Your task to perform on an android device: View the shopping cart on ebay.com. Search for "razer blade" on ebay.com, select the first entry, add it to the cart, then select checkout. Image 0: 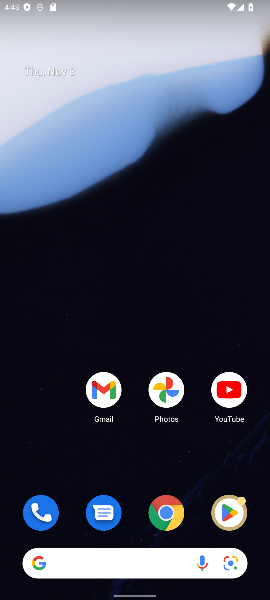
Step 0: click (166, 511)
Your task to perform on an android device: View the shopping cart on ebay.com. Search for "razer blade" on ebay.com, select the first entry, add it to the cart, then select checkout. Image 1: 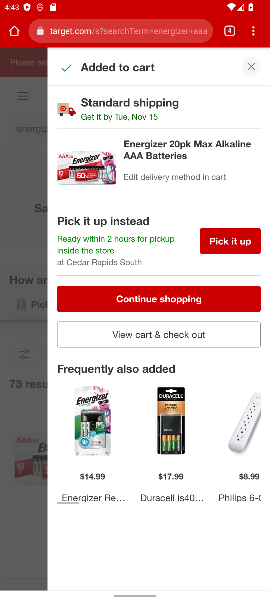
Step 1: click (231, 32)
Your task to perform on an android device: View the shopping cart on ebay.com. Search for "razer blade" on ebay.com, select the first entry, add it to the cart, then select checkout. Image 2: 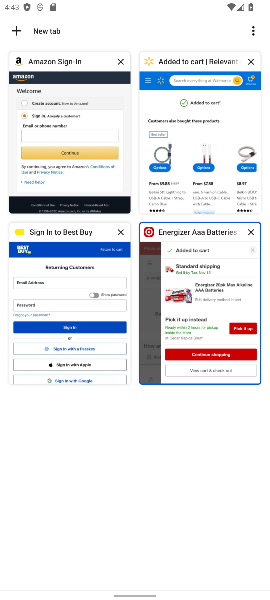
Step 2: click (16, 30)
Your task to perform on an android device: View the shopping cart on ebay.com. Search for "razer blade" on ebay.com, select the first entry, add it to the cart, then select checkout. Image 3: 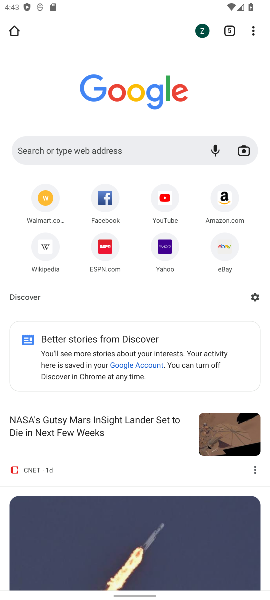
Step 3: click (126, 149)
Your task to perform on an android device: View the shopping cart on ebay.com. Search for "razer blade" on ebay.com, select the first entry, add it to the cart, then select checkout. Image 4: 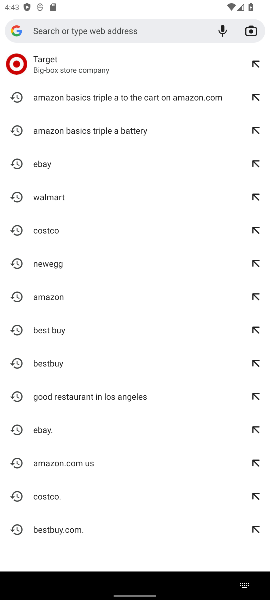
Step 4: click (46, 161)
Your task to perform on an android device: View the shopping cart on ebay.com. Search for "razer blade" on ebay.com, select the first entry, add it to the cart, then select checkout. Image 5: 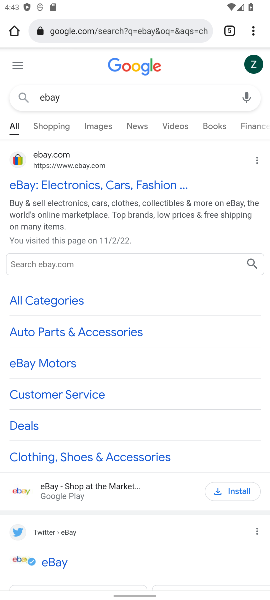
Step 5: click (28, 261)
Your task to perform on an android device: View the shopping cart on ebay.com. Search for "razer blade" on ebay.com, select the first entry, add it to the cart, then select checkout. Image 6: 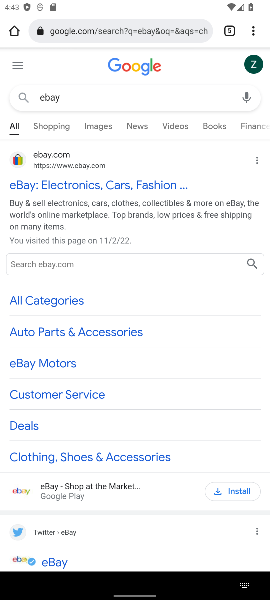
Step 6: click (149, 268)
Your task to perform on an android device: View the shopping cart on ebay.com. Search for "razer blade" on ebay.com, select the first entry, add it to the cart, then select checkout. Image 7: 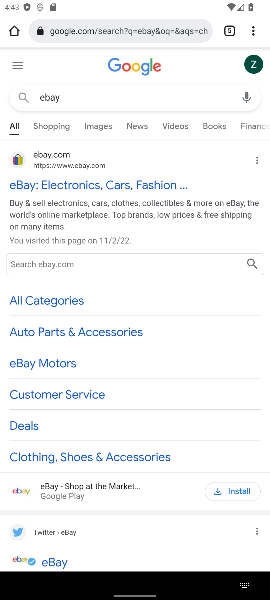
Step 7: click (60, 263)
Your task to perform on an android device: View the shopping cart on ebay.com. Search for "razer blade" on ebay.com, select the first entry, add it to the cart, then select checkout. Image 8: 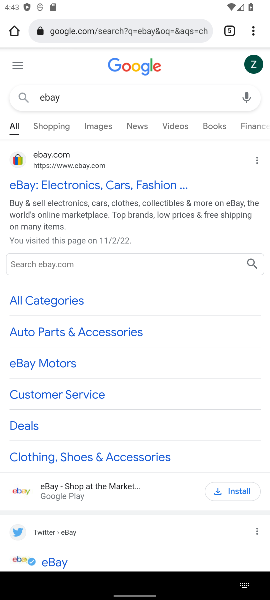
Step 8: type "razer blade"
Your task to perform on an android device: View the shopping cart on ebay.com. Search for "razer blade" on ebay.com, select the first entry, add it to the cart, then select checkout. Image 9: 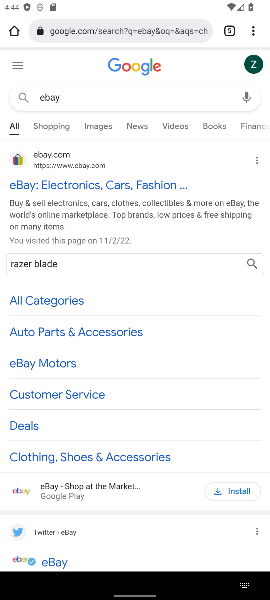
Step 9: click (254, 259)
Your task to perform on an android device: View the shopping cart on ebay.com. Search for "razer blade" on ebay.com, select the first entry, add it to the cart, then select checkout. Image 10: 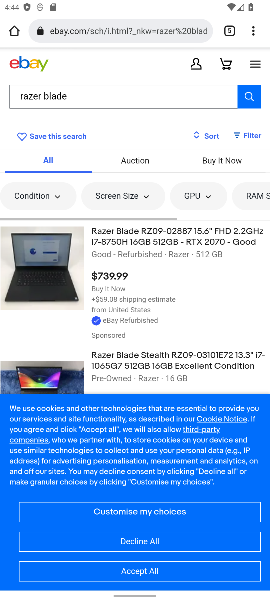
Step 10: click (171, 247)
Your task to perform on an android device: View the shopping cart on ebay.com. Search for "razer blade" on ebay.com, select the first entry, add it to the cart, then select checkout. Image 11: 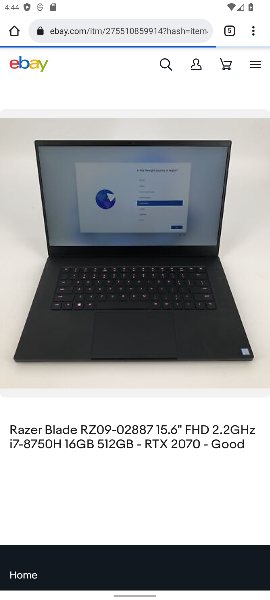
Step 11: click (131, 543)
Your task to perform on an android device: View the shopping cart on ebay.com. Search for "razer blade" on ebay.com, select the first entry, add it to the cart, then select checkout. Image 12: 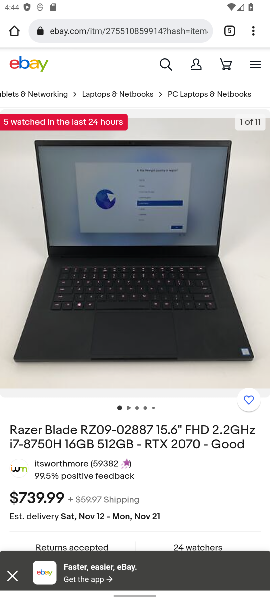
Step 12: drag from (178, 510) to (194, 274)
Your task to perform on an android device: View the shopping cart on ebay.com. Search for "razer blade" on ebay.com, select the first entry, add it to the cart, then select checkout. Image 13: 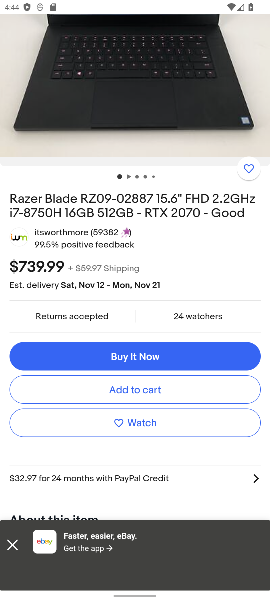
Step 13: click (13, 578)
Your task to perform on an android device: View the shopping cart on ebay.com. Search for "razer blade" on ebay.com, select the first entry, add it to the cart, then select checkout. Image 14: 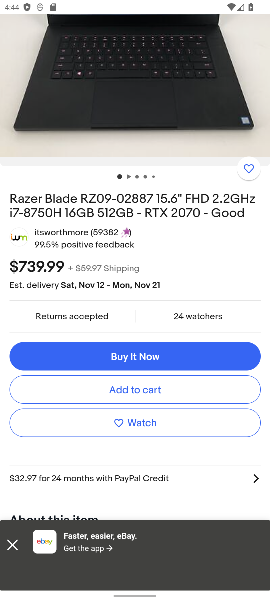
Step 14: click (138, 387)
Your task to perform on an android device: View the shopping cart on ebay.com. Search for "razer blade" on ebay.com, select the first entry, add it to the cart, then select checkout. Image 15: 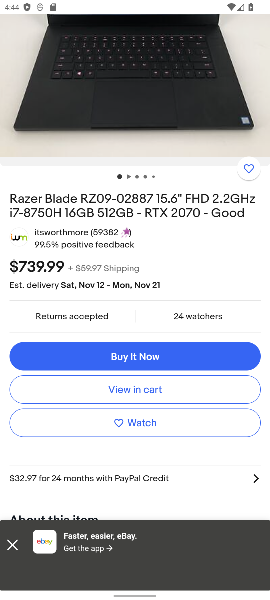
Step 15: task complete